Your task to perform on an android device: uninstall "Microsoft Outlook" Image 0: 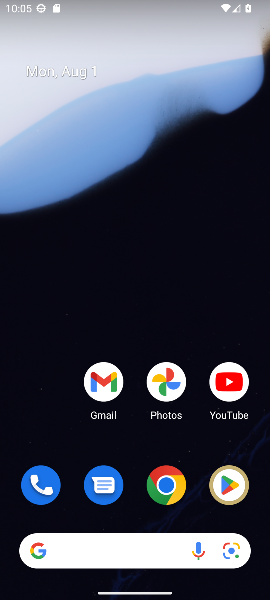
Step 0: drag from (120, 560) to (139, 37)
Your task to perform on an android device: uninstall "Microsoft Outlook" Image 1: 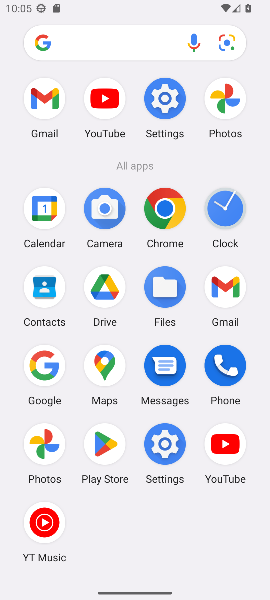
Step 1: click (101, 430)
Your task to perform on an android device: uninstall "Microsoft Outlook" Image 2: 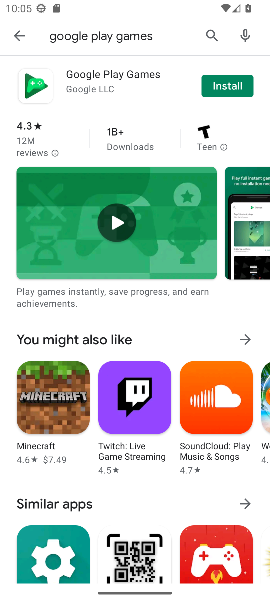
Step 2: click (211, 33)
Your task to perform on an android device: uninstall "Microsoft Outlook" Image 3: 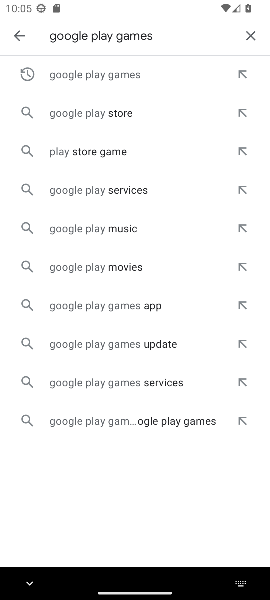
Step 3: click (250, 25)
Your task to perform on an android device: uninstall "Microsoft Outlook" Image 4: 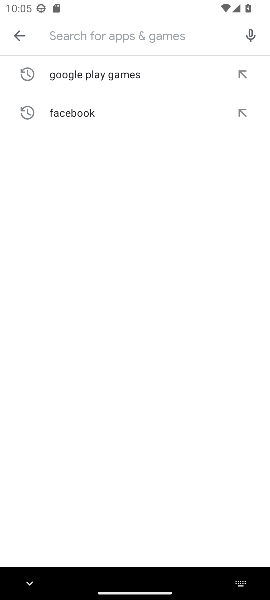
Step 4: type "microsoft outlook"
Your task to perform on an android device: uninstall "Microsoft Outlook" Image 5: 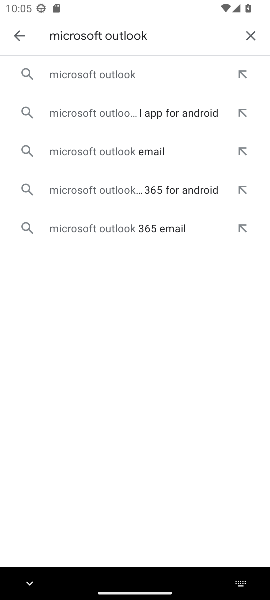
Step 5: click (110, 80)
Your task to perform on an android device: uninstall "Microsoft Outlook" Image 6: 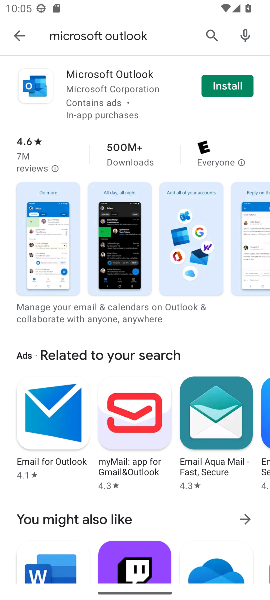
Step 6: click (234, 87)
Your task to perform on an android device: uninstall "Microsoft Outlook" Image 7: 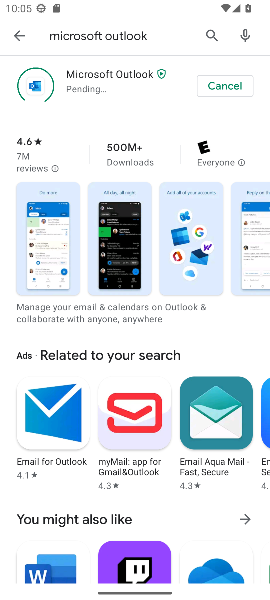
Step 7: click (234, 87)
Your task to perform on an android device: uninstall "Microsoft Outlook" Image 8: 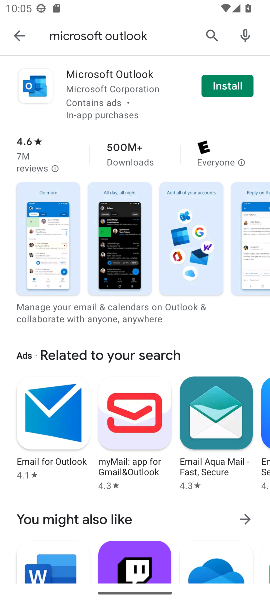
Step 8: task complete